Your task to perform on an android device: turn on data saver in the chrome app Image 0: 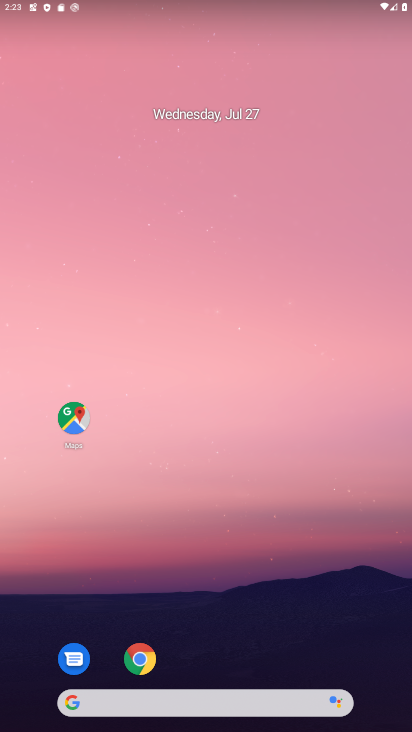
Step 0: click (141, 662)
Your task to perform on an android device: turn on data saver in the chrome app Image 1: 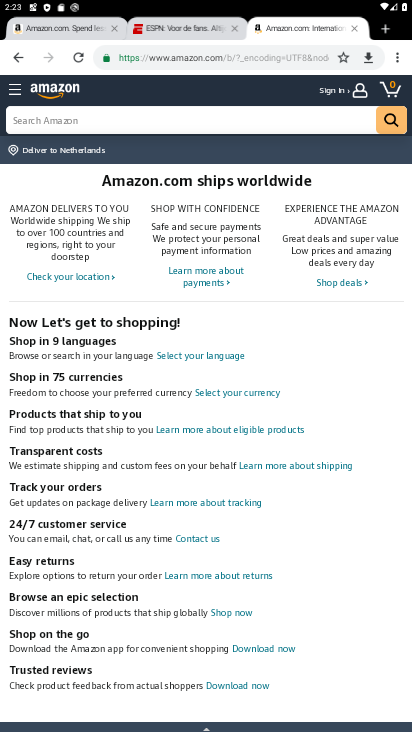
Step 1: click (398, 62)
Your task to perform on an android device: turn on data saver in the chrome app Image 2: 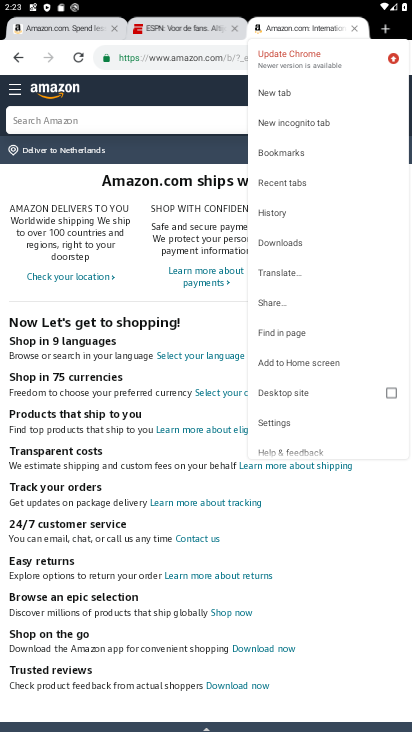
Step 2: click (274, 420)
Your task to perform on an android device: turn on data saver in the chrome app Image 3: 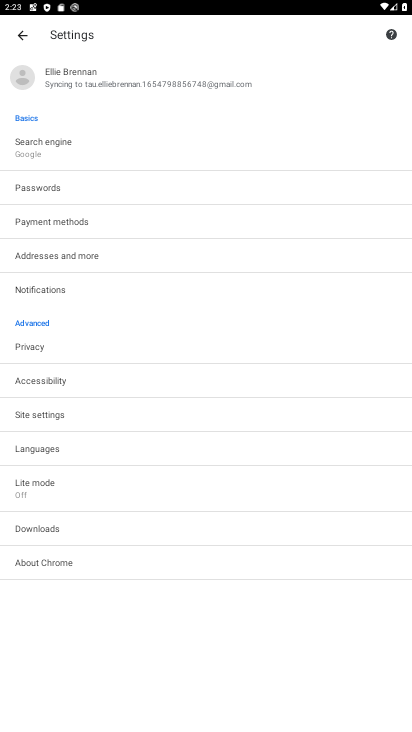
Step 3: click (33, 485)
Your task to perform on an android device: turn on data saver in the chrome app Image 4: 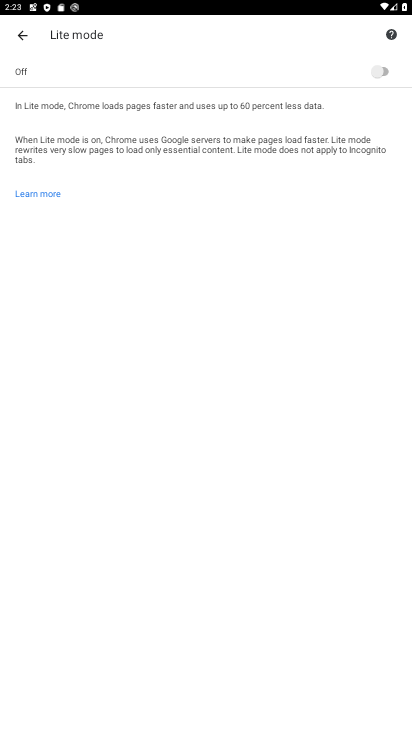
Step 4: click (384, 64)
Your task to perform on an android device: turn on data saver in the chrome app Image 5: 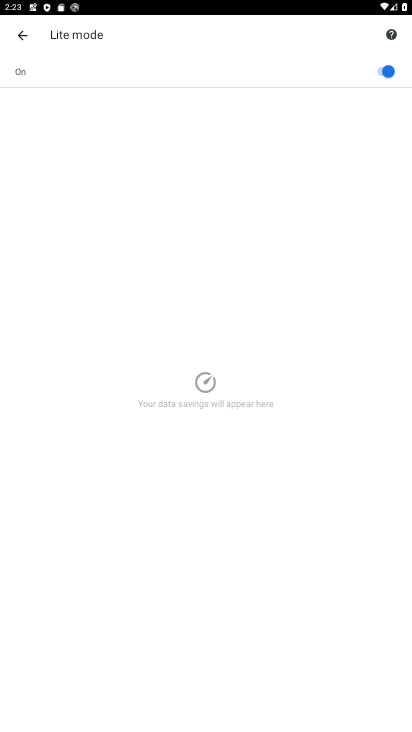
Step 5: task complete